Your task to perform on an android device: check battery use Image 0: 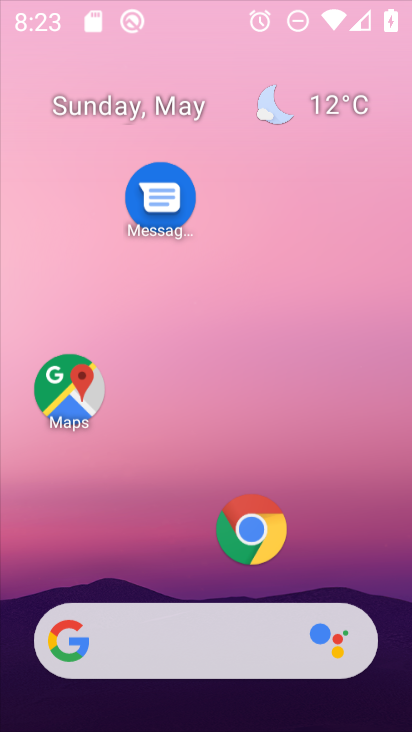
Step 0: press home button
Your task to perform on an android device: check battery use Image 1: 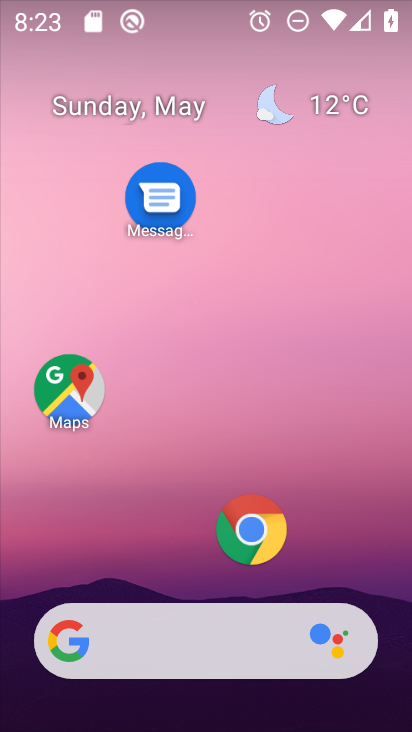
Step 1: drag from (190, 572) to (285, 2)
Your task to perform on an android device: check battery use Image 2: 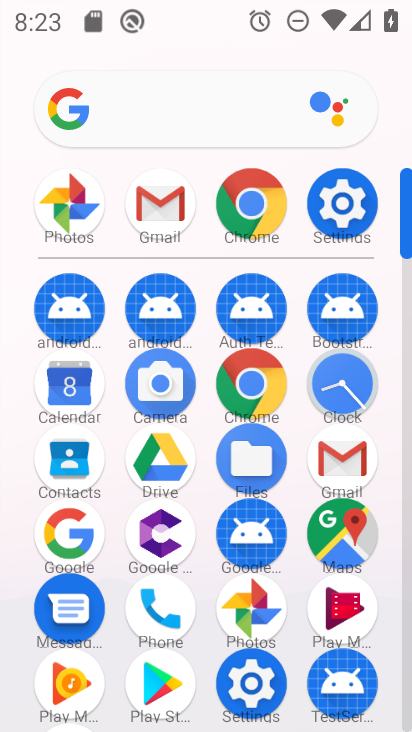
Step 2: click (345, 200)
Your task to perform on an android device: check battery use Image 3: 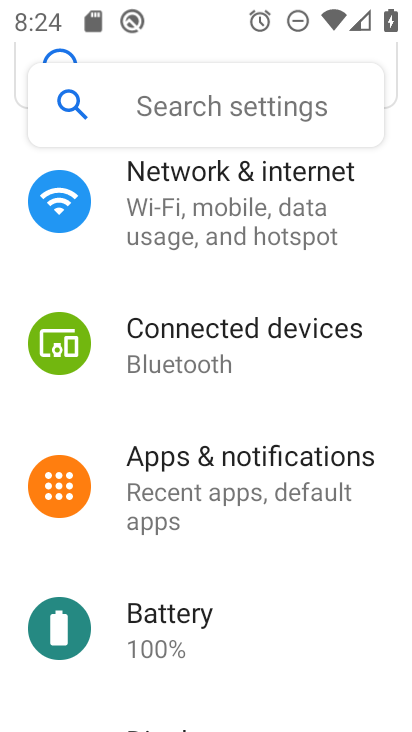
Step 3: click (208, 637)
Your task to perform on an android device: check battery use Image 4: 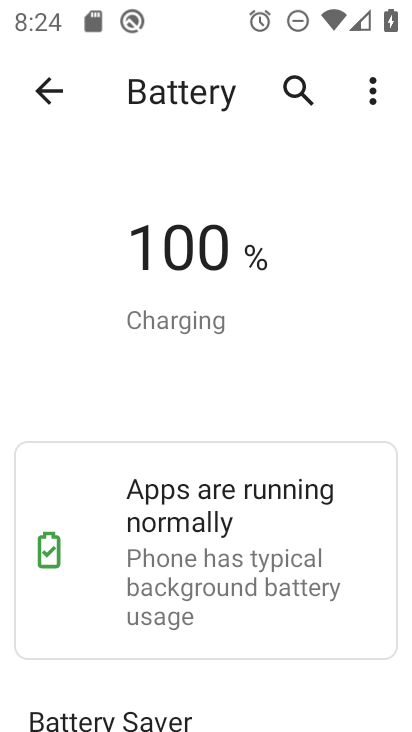
Step 4: click (363, 90)
Your task to perform on an android device: check battery use Image 5: 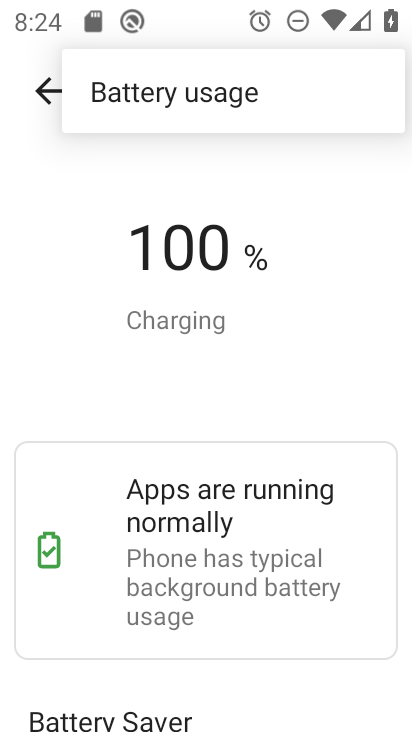
Step 5: drag from (231, 575) to (247, 372)
Your task to perform on an android device: check battery use Image 6: 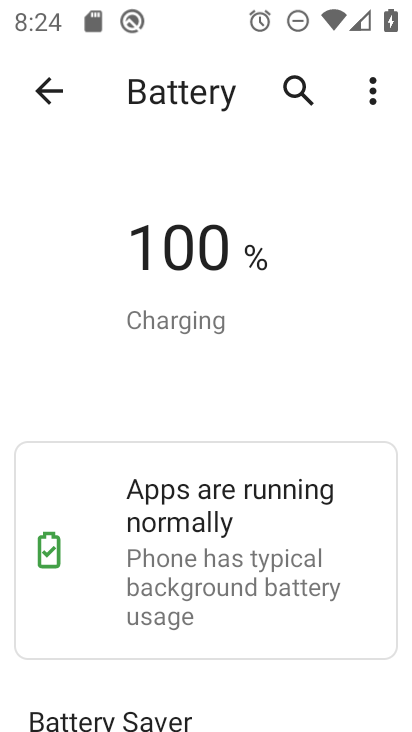
Step 6: click (365, 89)
Your task to perform on an android device: check battery use Image 7: 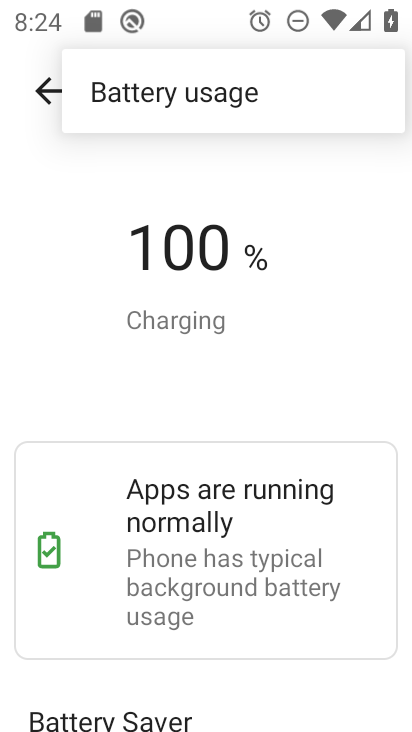
Step 7: click (266, 99)
Your task to perform on an android device: check battery use Image 8: 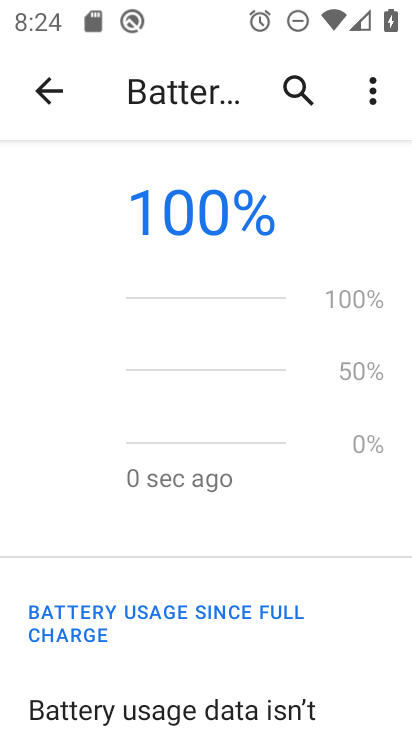
Step 8: task complete